Your task to perform on an android device: turn off notifications settings in the gmail app Image 0: 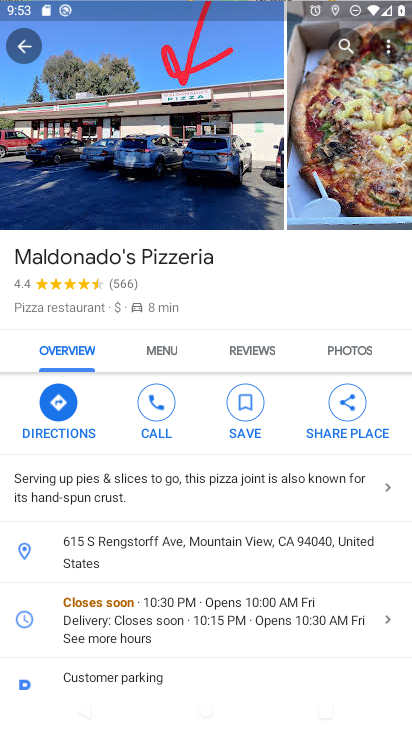
Step 0: press home button
Your task to perform on an android device: turn off notifications settings in the gmail app Image 1: 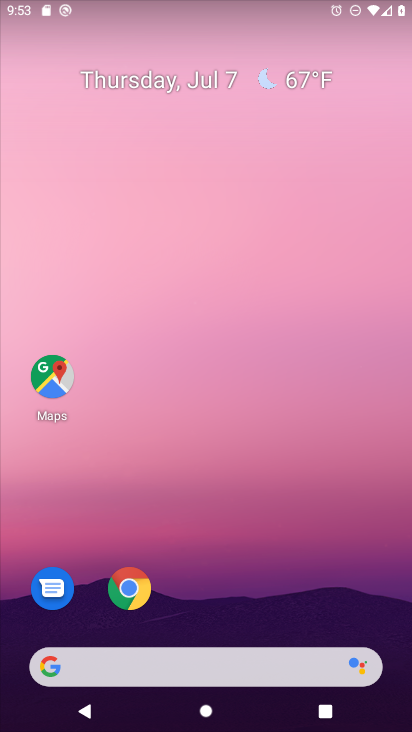
Step 1: drag from (243, 590) to (218, 13)
Your task to perform on an android device: turn off notifications settings in the gmail app Image 2: 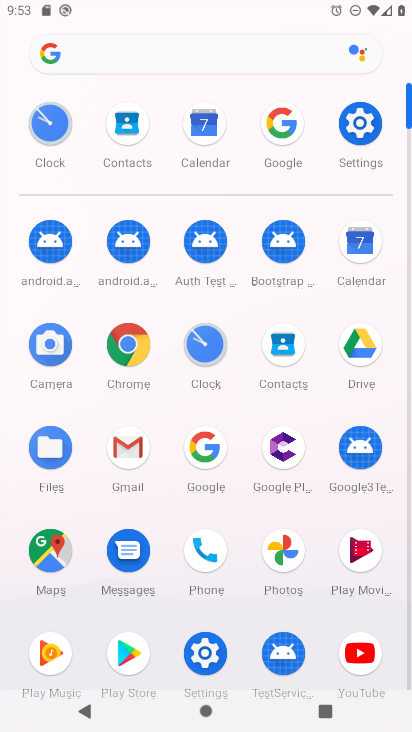
Step 2: click (125, 445)
Your task to perform on an android device: turn off notifications settings in the gmail app Image 3: 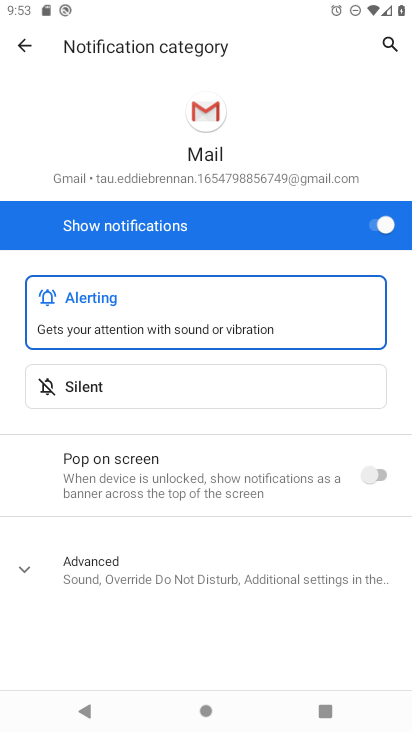
Step 3: click (378, 227)
Your task to perform on an android device: turn off notifications settings in the gmail app Image 4: 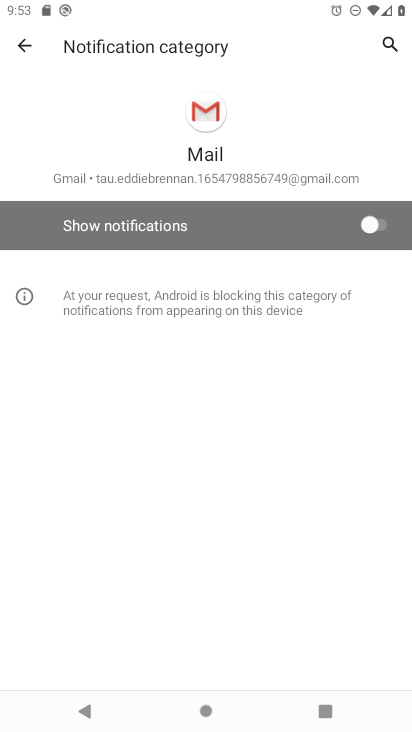
Step 4: task complete